Your task to perform on an android device: Open my contact list Image 0: 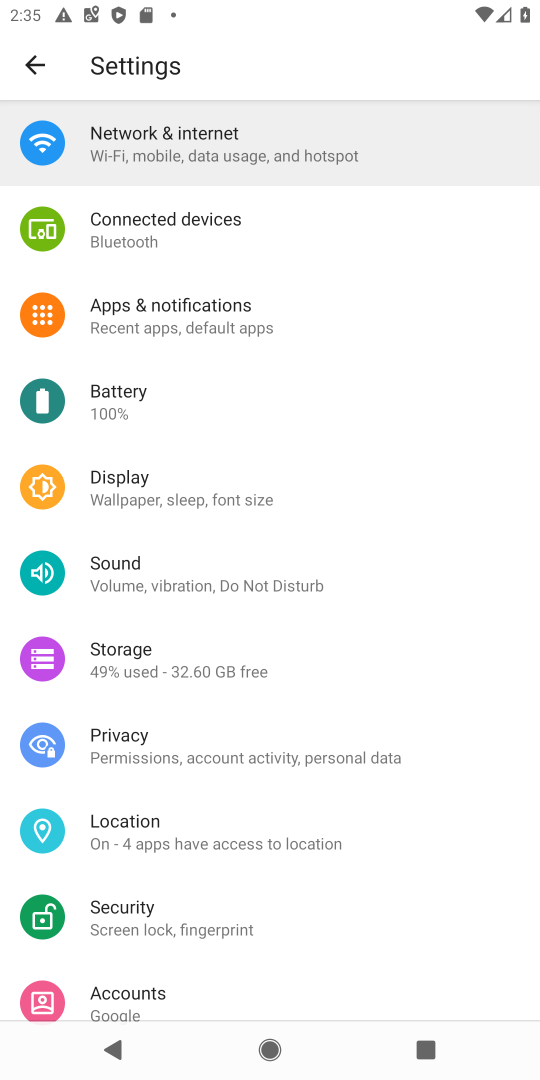
Step 0: press back button
Your task to perform on an android device: Open my contact list Image 1: 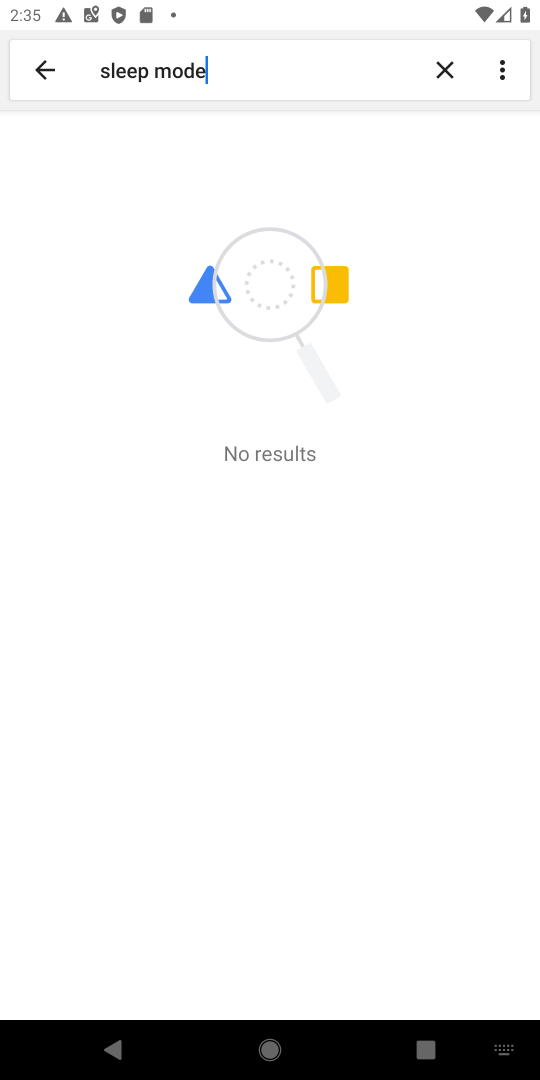
Step 1: press back button
Your task to perform on an android device: Open my contact list Image 2: 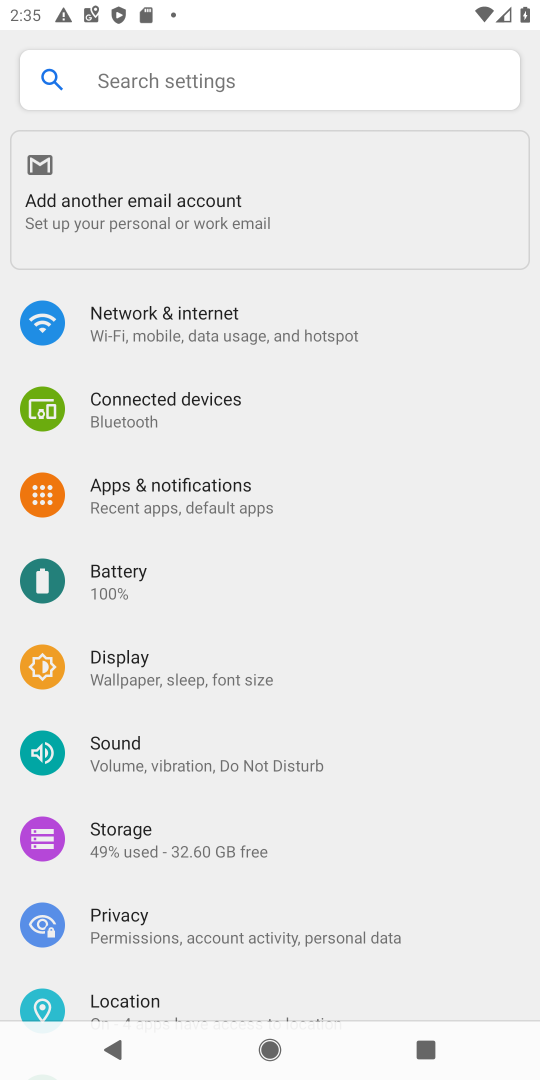
Step 2: press back button
Your task to perform on an android device: Open my contact list Image 3: 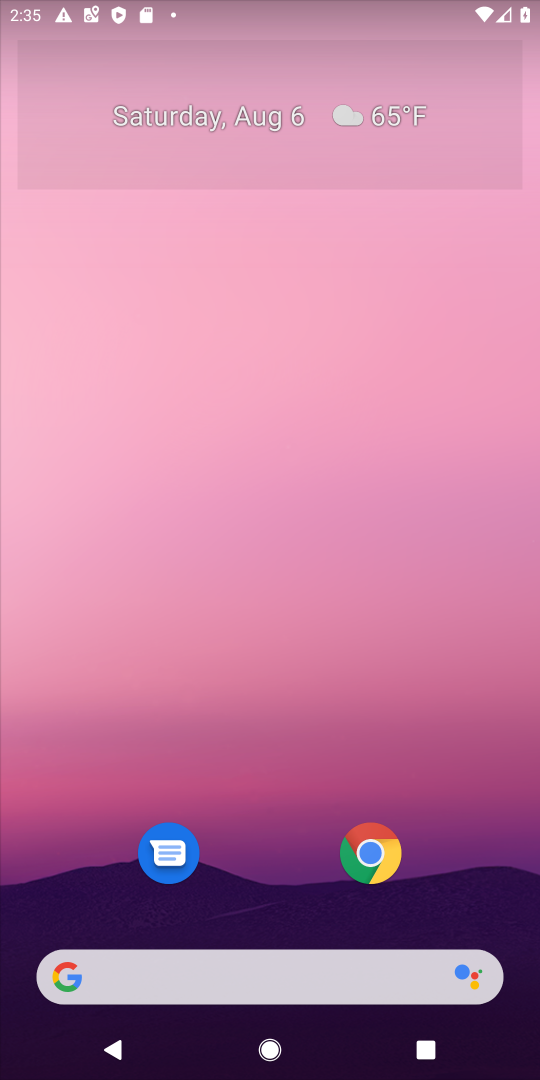
Step 3: drag from (315, 850) to (336, 205)
Your task to perform on an android device: Open my contact list Image 4: 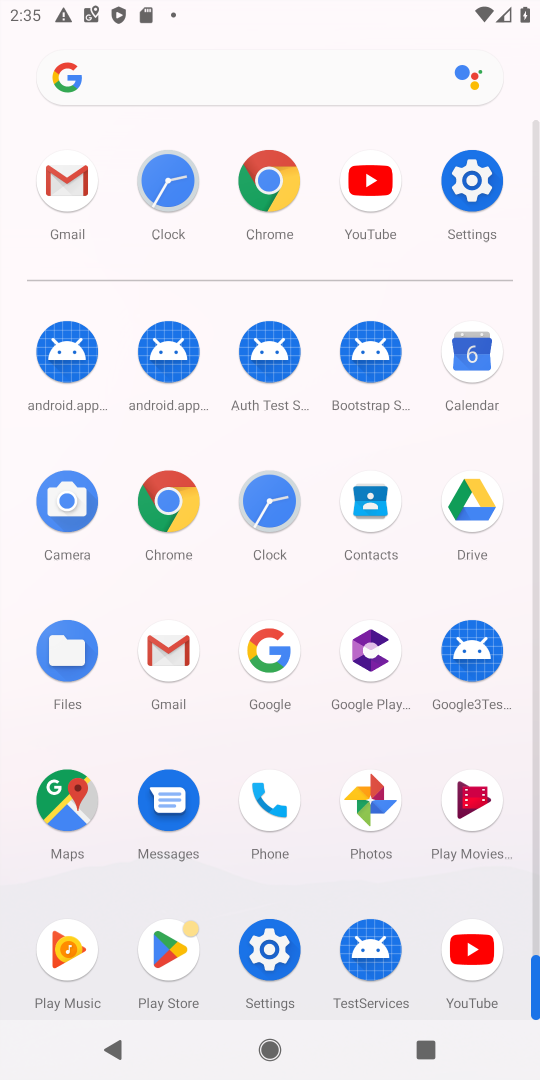
Step 4: click (367, 513)
Your task to perform on an android device: Open my contact list Image 5: 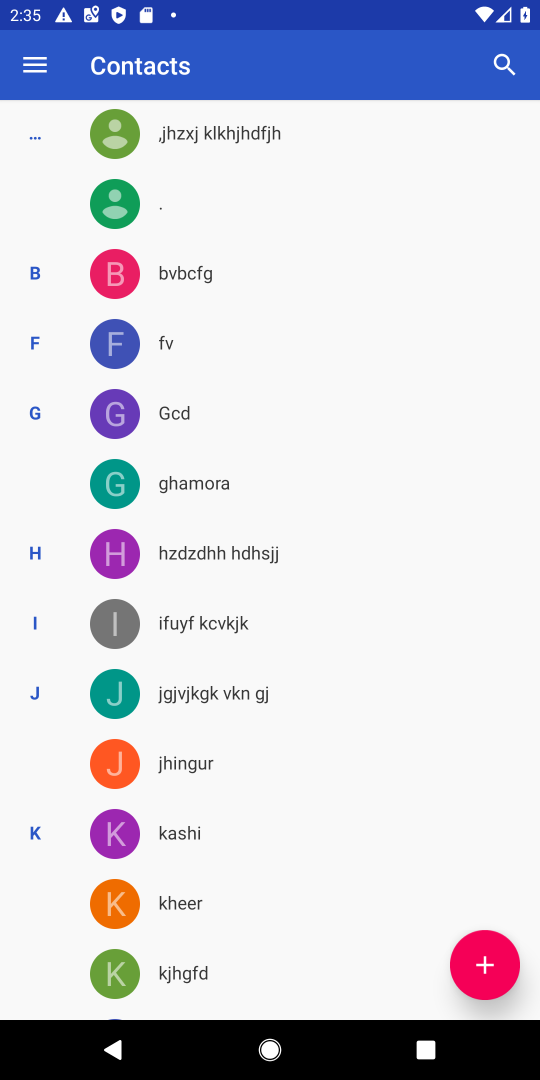
Step 5: task complete